Your task to perform on an android device: open wifi settings Image 0: 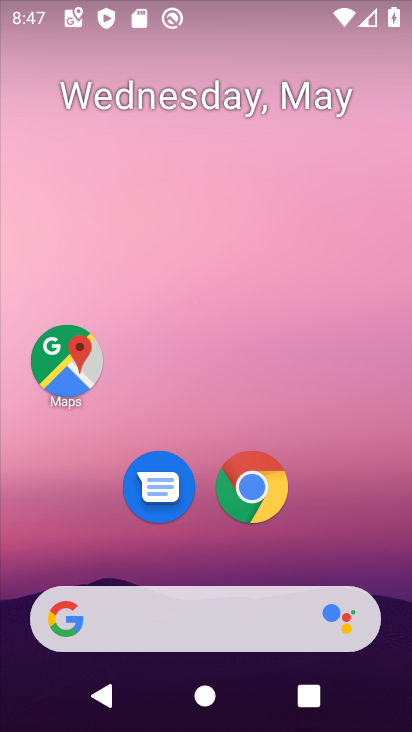
Step 0: drag from (334, 520) to (139, 50)
Your task to perform on an android device: open wifi settings Image 1: 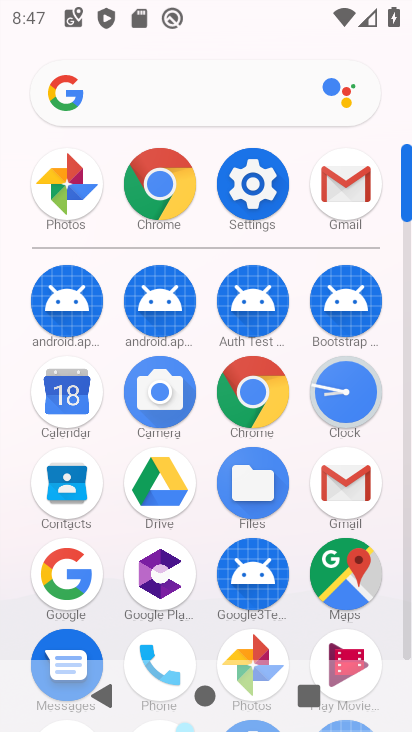
Step 1: click (248, 178)
Your task to perform on an android device: open wifi settings Image 2: 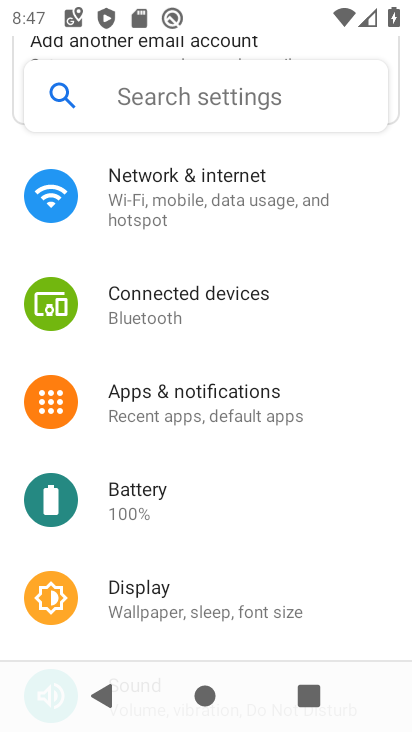
Step 2: click (181, 184)
Your task to perform on an android device: open wifi settings Image 3: 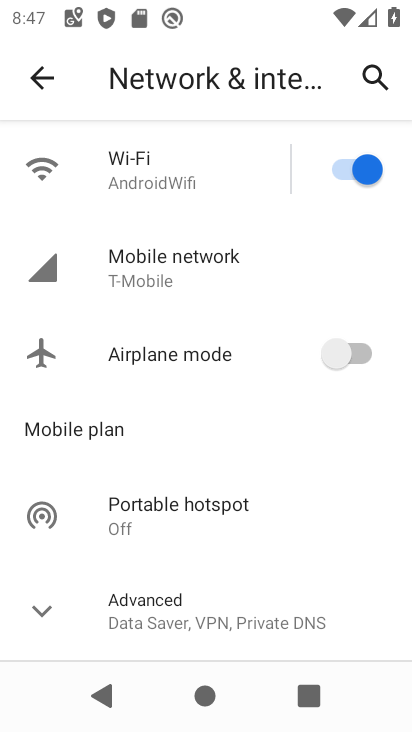
Step 3: click (156, 162)
Your task to perform on an android device: open wifi settings Image 4: 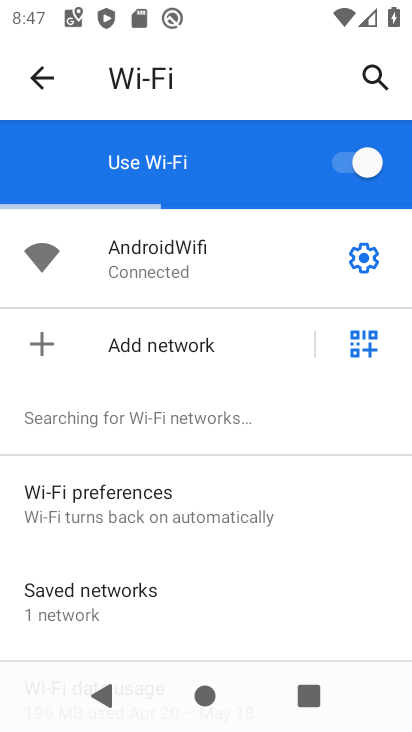
Step 4: task complete